Your task to perform on an android device: Open maps Image 0: 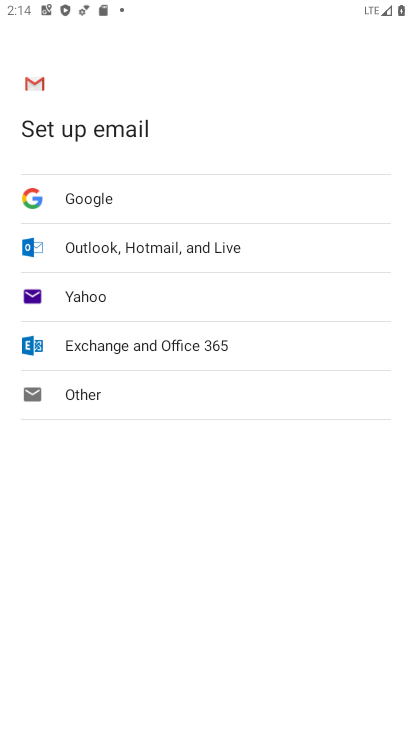
Step 0: press home button
Your task to perform on an android device: Open maps Image 1: 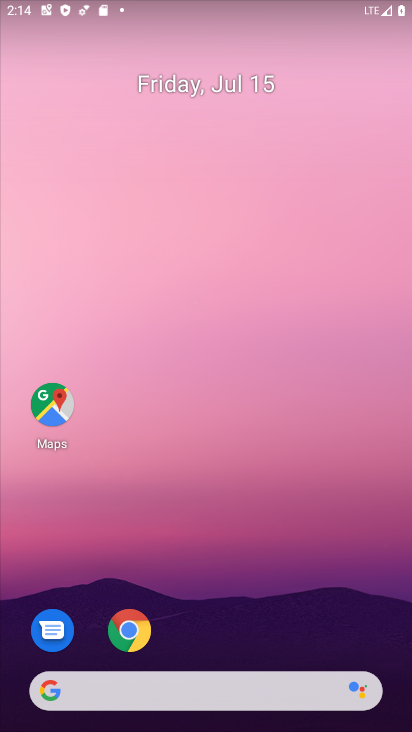
Step 1: click (71, 411)
Your task to perform on an android device: Open maps Image 2: 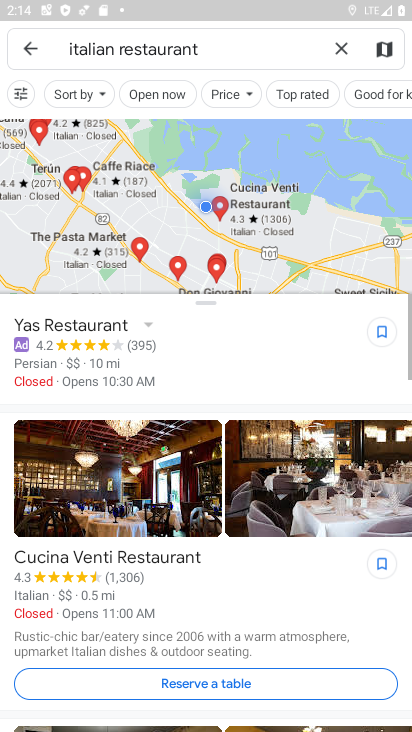
Step 2: click (71, 411)
Your task to perform on an android device: Open maps Image 3: 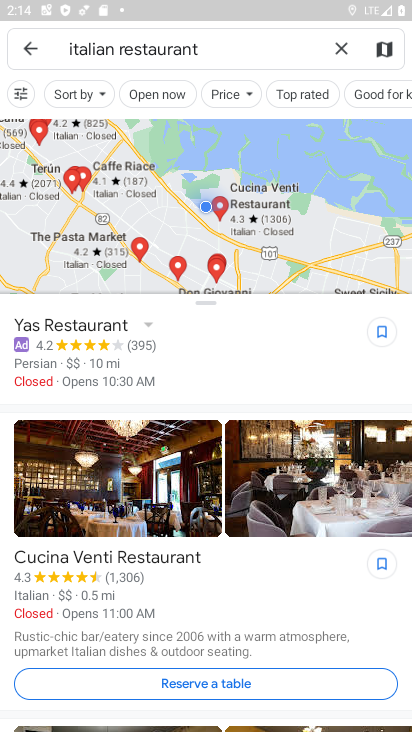
Step 3: click (34, 51)
Your task to perform on an android device: Open maps Image 4: 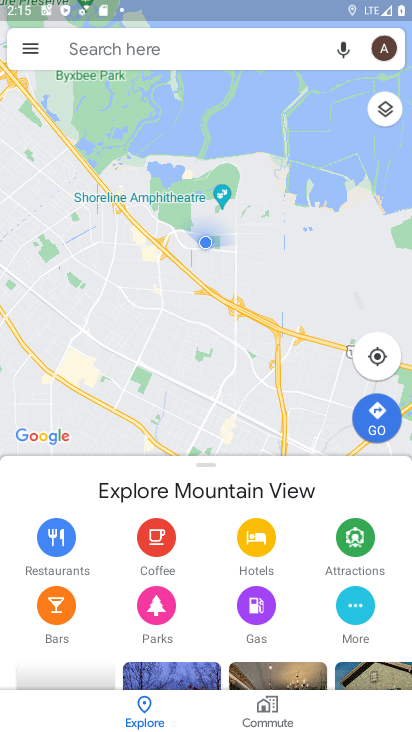
Step 4: task complete